Your task to perform on an android device: change the clock display to analog Image 0: 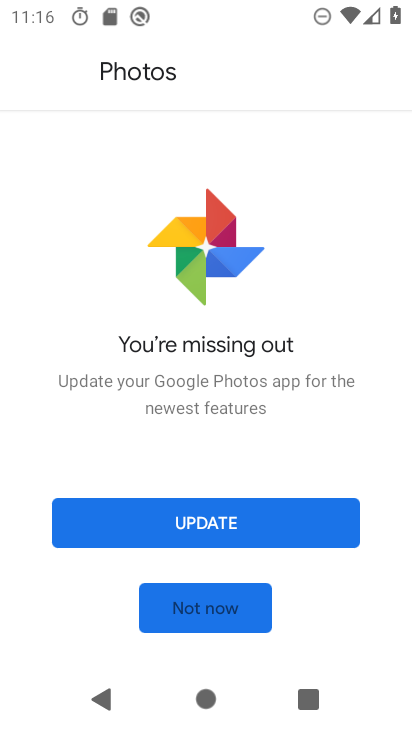
Step 0: press home button
Your task to perform on an android device: change the clock display to analog Image 1: 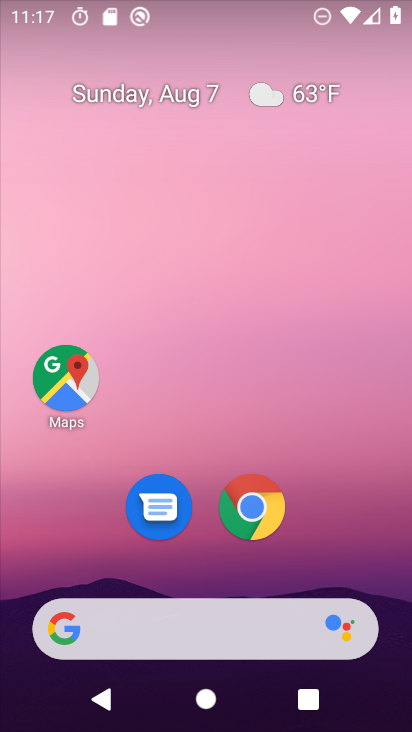
Step 1: drag from (317, 501) to (279, 22)
Your task to perform on an android device: change the clock display to analog Image 2: 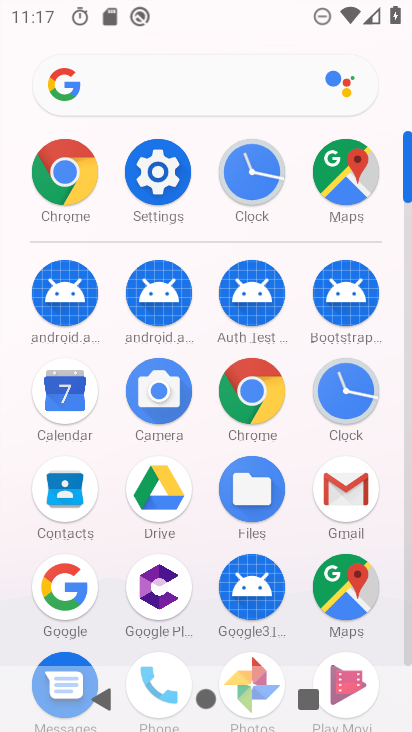
Step 2: click (340, 385)
Your task to perform on an android device: change the clock display to analog Image 3: 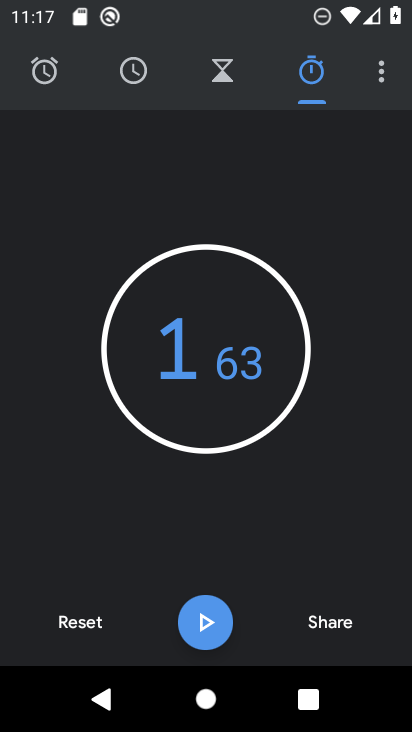
Step 3: click (384, 75)
Your task to perform on an android device: change the clock display to analog Image 4: 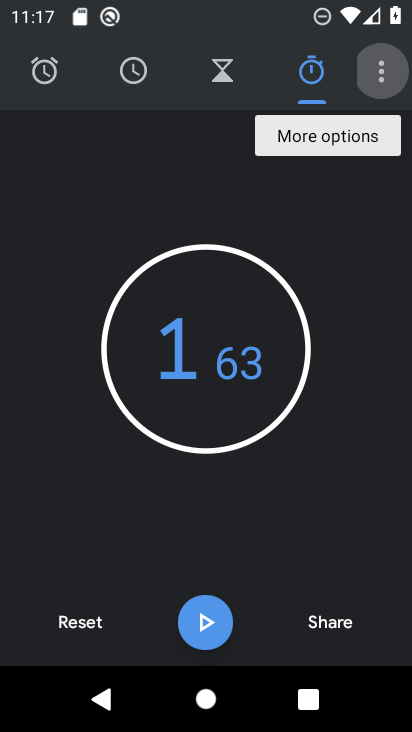
Step 4: click (378, 73)
Your task to perform on an android device: change the clock display to analog Image 5: 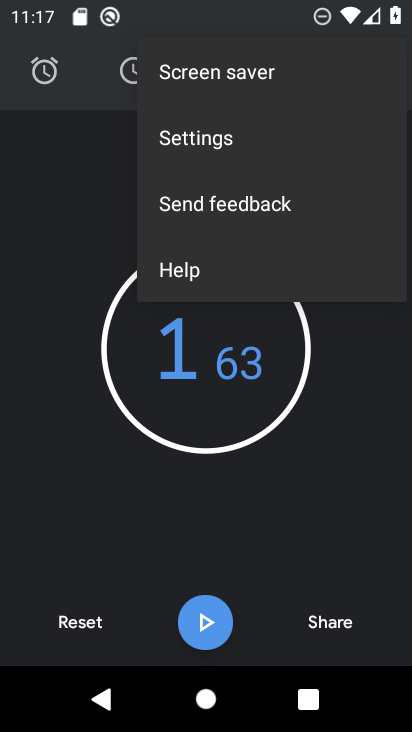
Step 5: click (257, 139)
Your task to perform on an android device: change the clock display to analog Image 6: 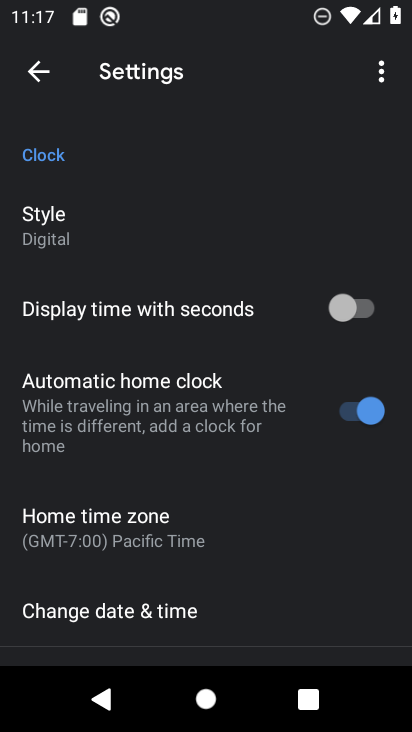
Step 6: click (44, 219)
Your task to perform on an android device: change the clock display to analog Image 7: 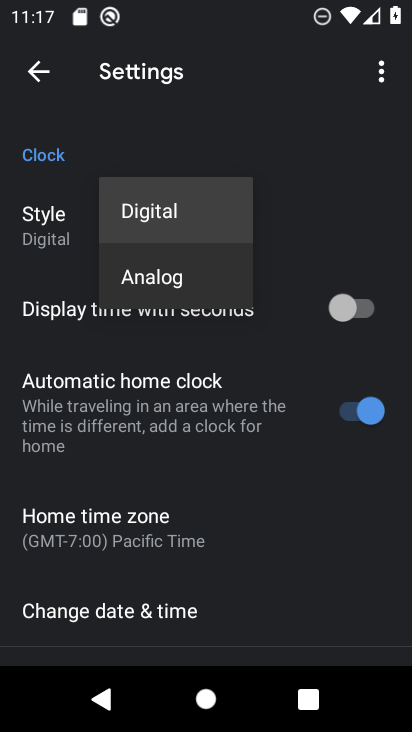
Step 7: click (135, 282)
Your task to perform on an android device: change the clock display to analog Image 8: 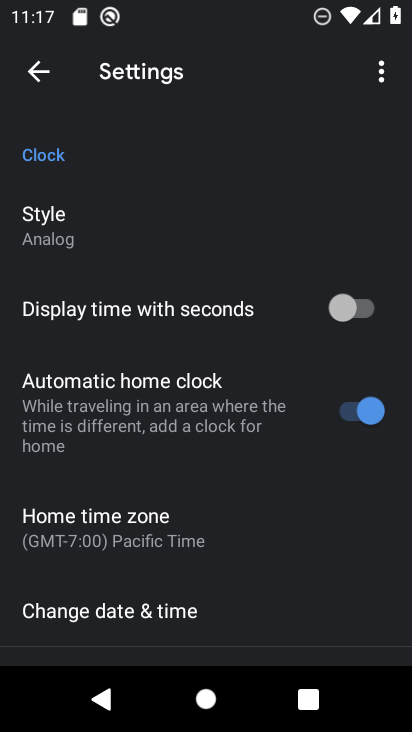
Step 8: task complete